Your task to perform on an android device: Open Google Image 0: 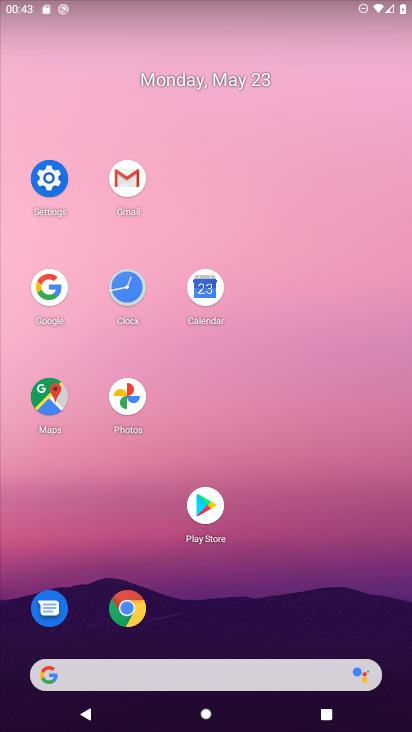
Step 0: click (49, 282)
Your task to perform on an android device: Open Google Image 1: 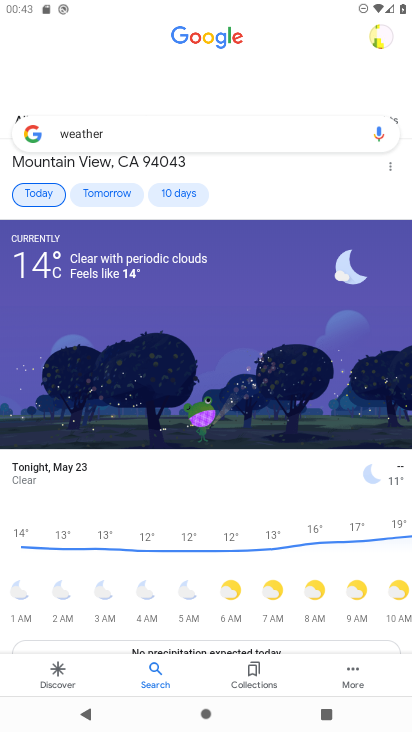
Step 1: task complete